Your task to perform on an android device: Go to Android settings Image 0: 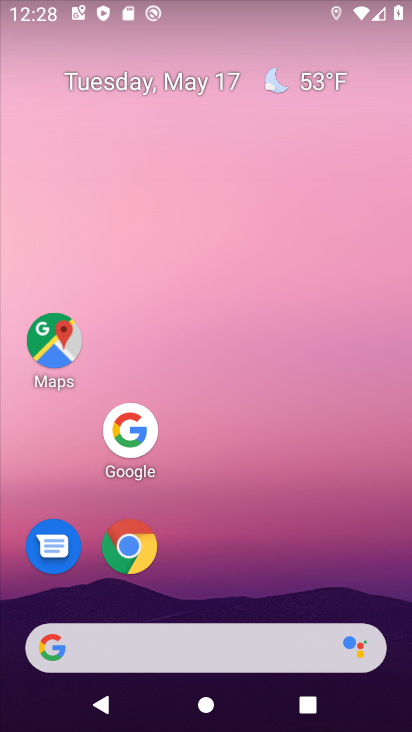
Step 0: drag from (260, 555) to (284, 86)
Your task to perform on an android device: Go to Android settings Image 1: 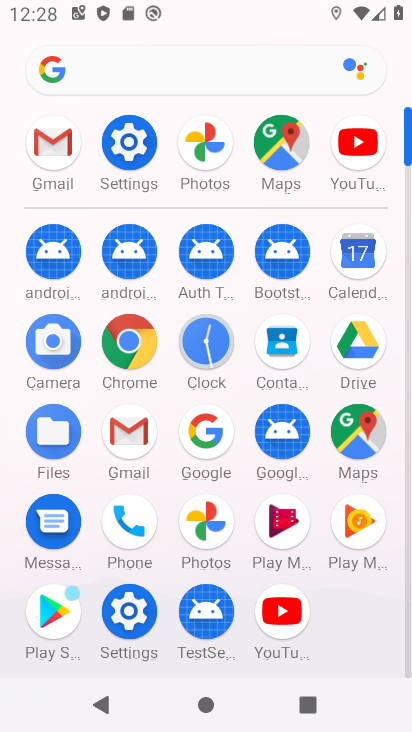
Step 1: click (130, 142)
Your task to perform on an android device: Go to Android settings Image 2: 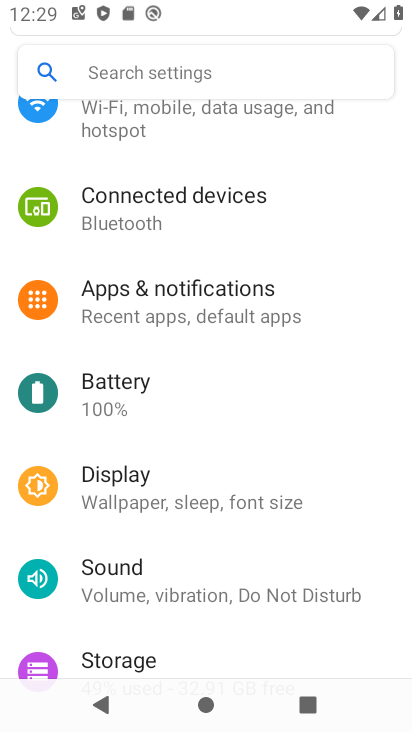
Step 2: task complete